Your task to perform on an android device: check out phone information Image 0: 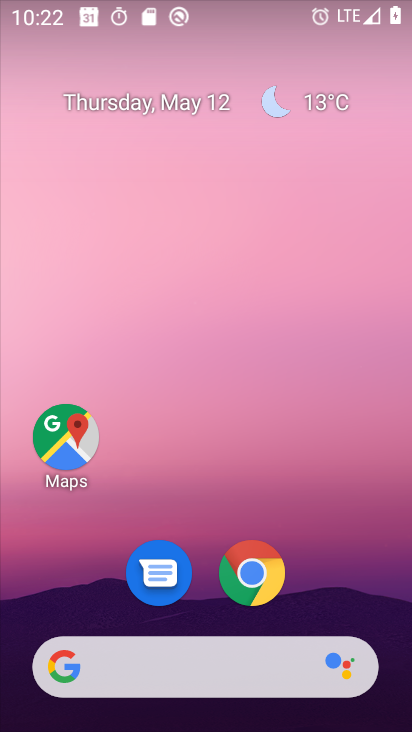
Step 0: drag from (388, 643) to (356, 218)
Your task to perform on an android device: check out phone information Image 1: 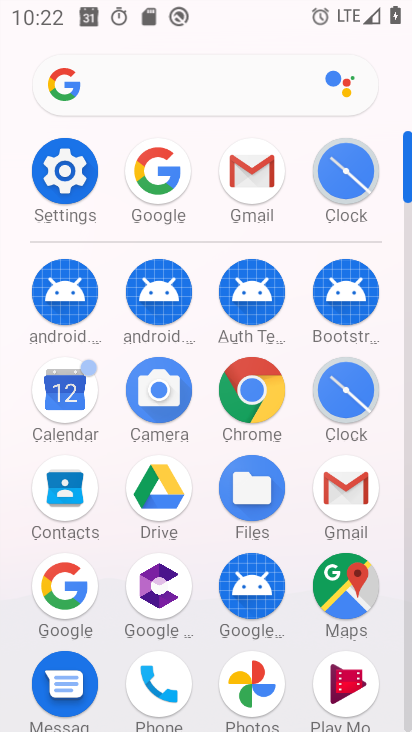
Step 1: click (68, 174)
Your task to perform on an android device: check out phone information Image 2: 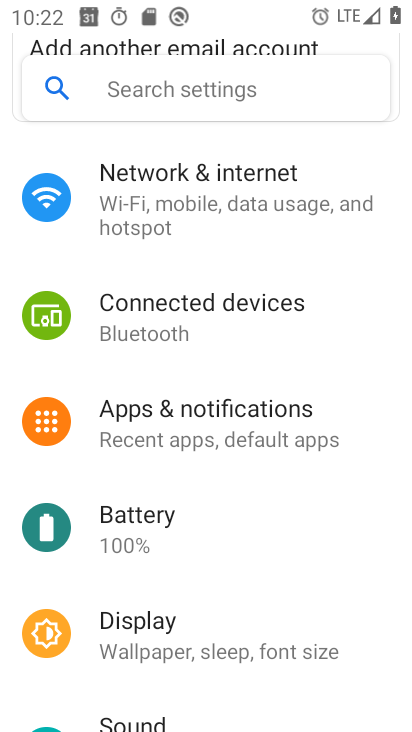
Step 2: drag from (356, 512) to (346, 378)
Your task to perform on an android device: check out phone information Image 3: 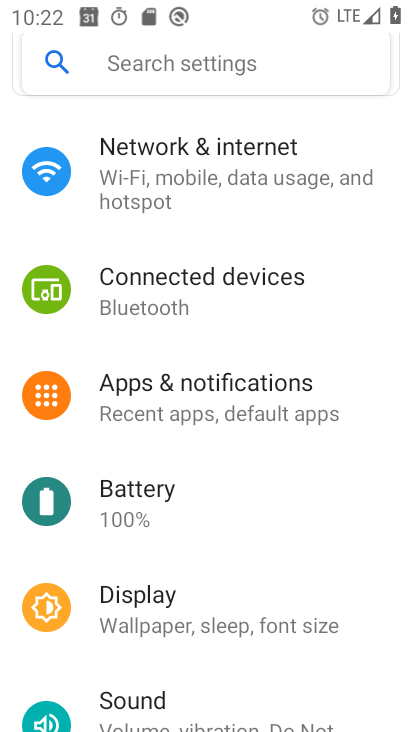
Step 3: drag from (347, 649) to (351, 331)
Your task to perform on an android device: check out phone information Image 4: 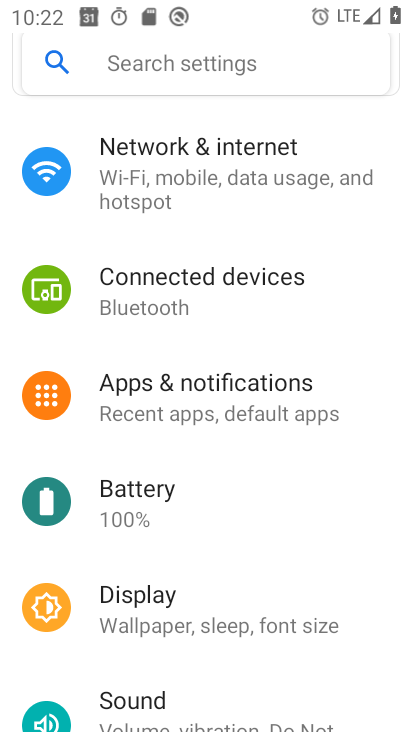
Step 4: drag from (369, 687) to (366, 321)
Your task to perform on an android device: check out phone information Image 5: 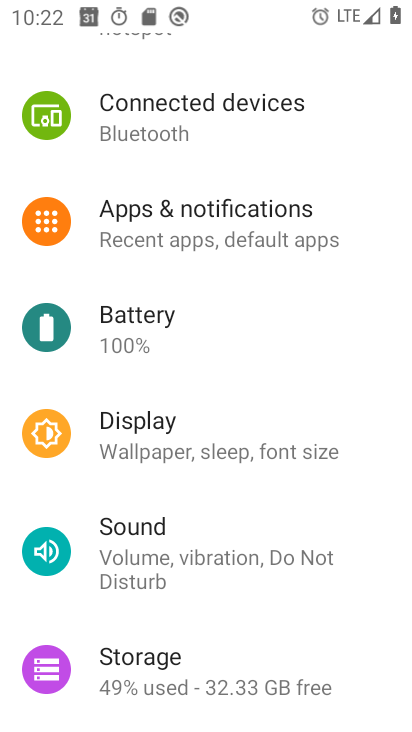
Step 5: drag from (385, 458) to (385, 386)
Your task to perform on an android device: check out phone information Image 6: 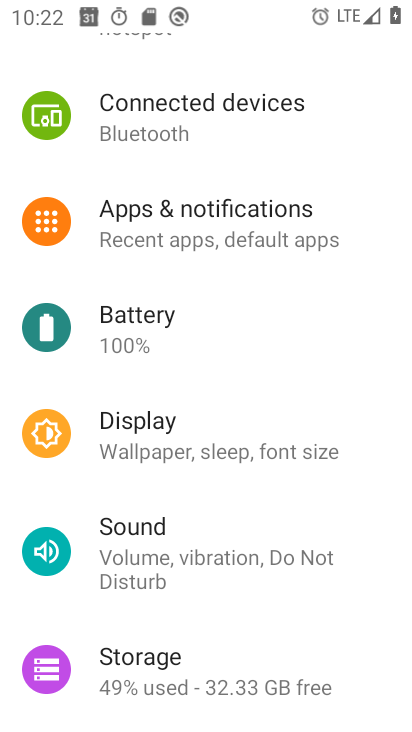
Step 6: drag from (369, 696) to (385, 275)
Your task to perform on an android device: check out phone information Image 7: 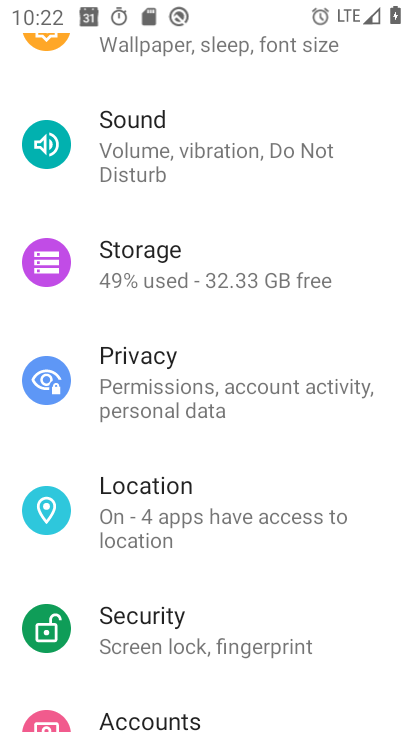
Step 7: drag from (384, 703) to (373, 296)
Your task to perform on an android device: check out phone information Image 8: 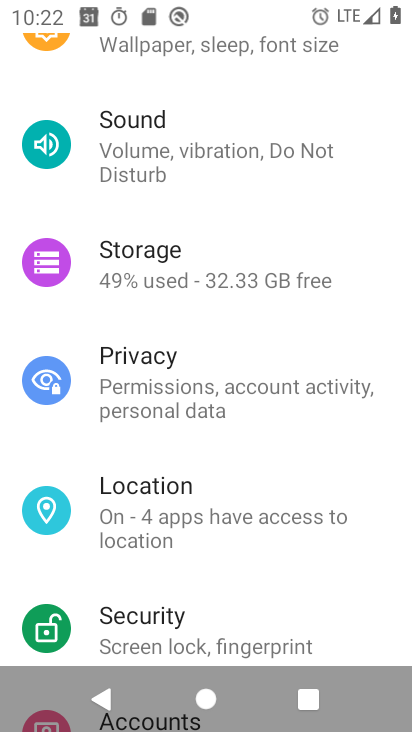
Step 8: drag from (360, 565) to (367, 306)
Your task to perform on an android device: check out phone information Image 9: 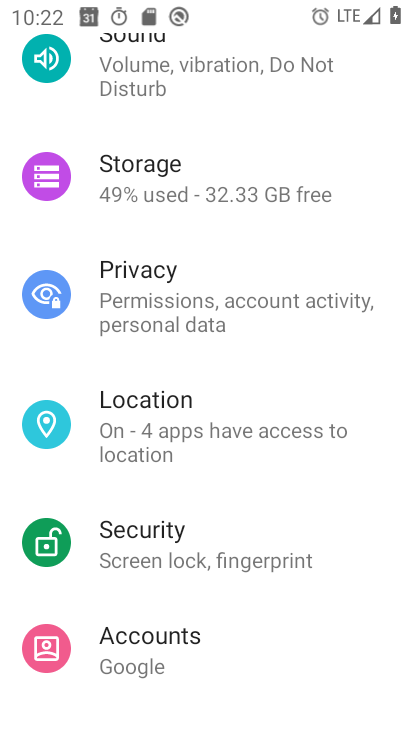
Step 9: drag from (345, 654) to (347, 341)
Your task to perform on an android device: check out phone information Image 10: 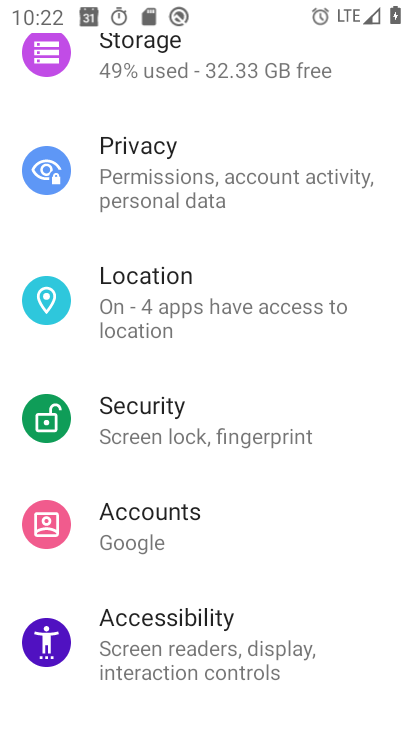
Step 10: drag from (348, 620) to (354, 330)
Your task to perform on an android device: check out phone information Image 11: 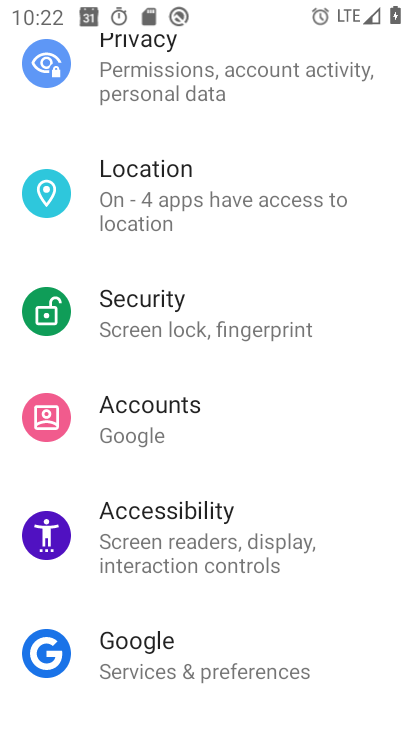
Step 11: drag from (384, 624) to (396, 208)
Your task to perform on an android device: check out phone information Image 12: 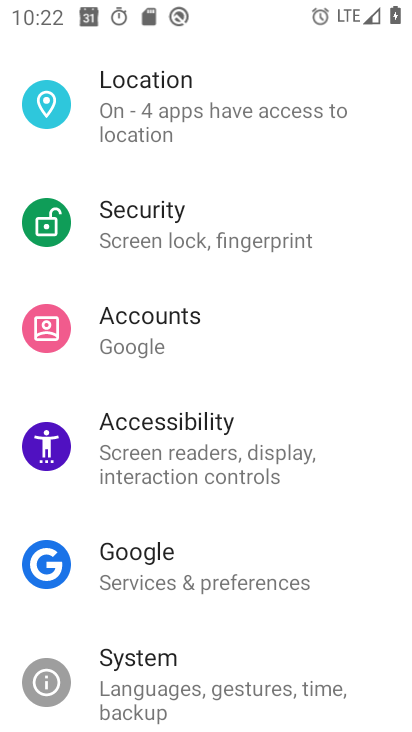
Step 12: drag from (381, 653) to (367, 242)
Your task to perform on an android device: check out phone information Image 13: 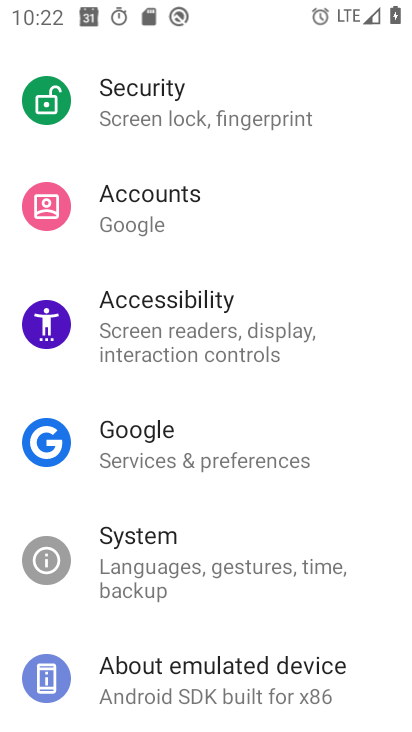
Step 13: click (195, 680)
Your task to perform on an android device: check out phone information Image 14: 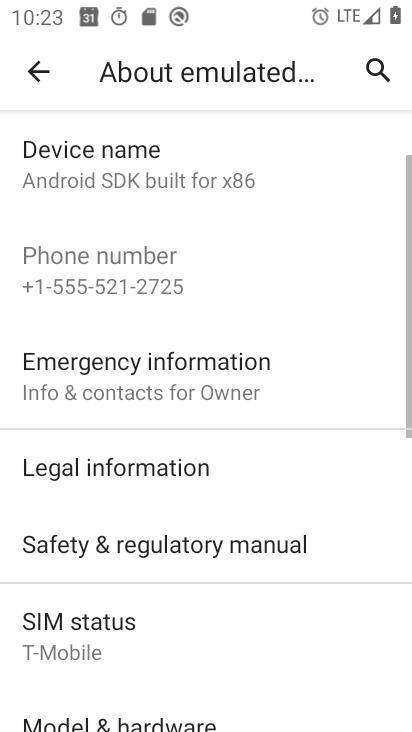
Step 14: task complete